Your task to perform on an android device: change the clock style Image 0: 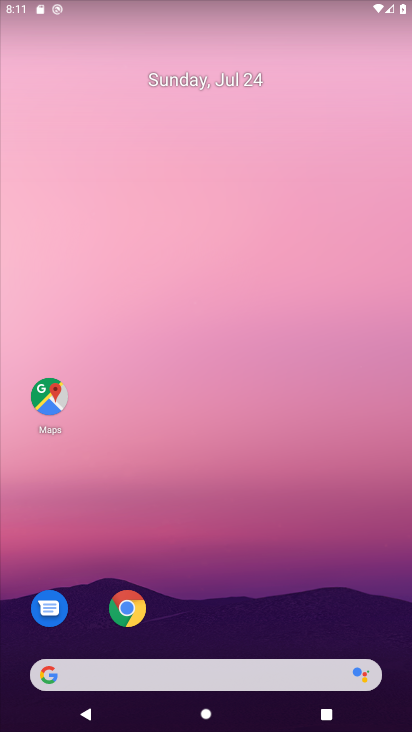
Step 0: drag from (163, 617) to (382, 38)
Your task to perform on an android device: change the clock style Image 1: 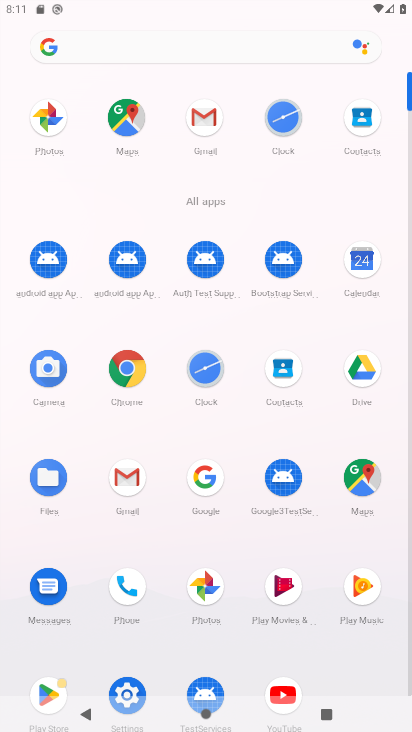
Step 1: click (288, 123)
Your task to perform on an android device: change the clock style Image 2: 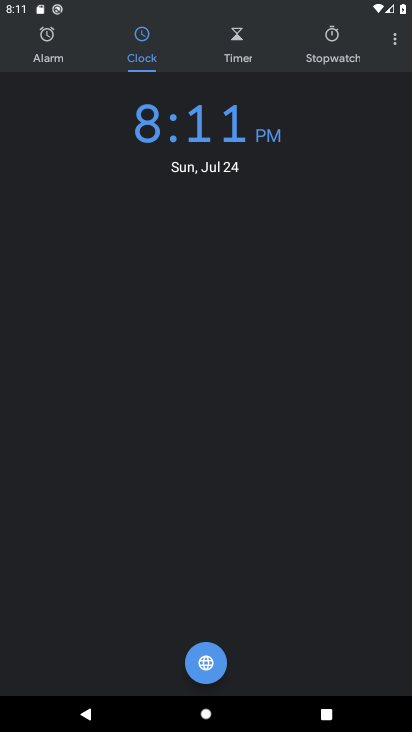
Step 2: click (399, 53)
Your task to perform on an android device: change the clock style Image 3: 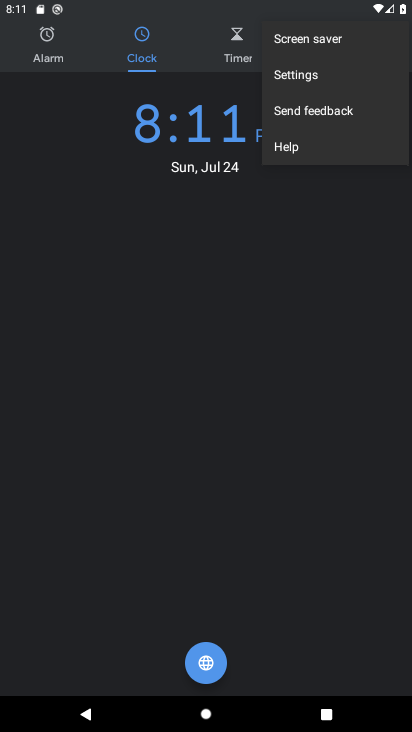
Step 3: click (292, 85)
Your task to perform on an android device: change the clock style Image 4: 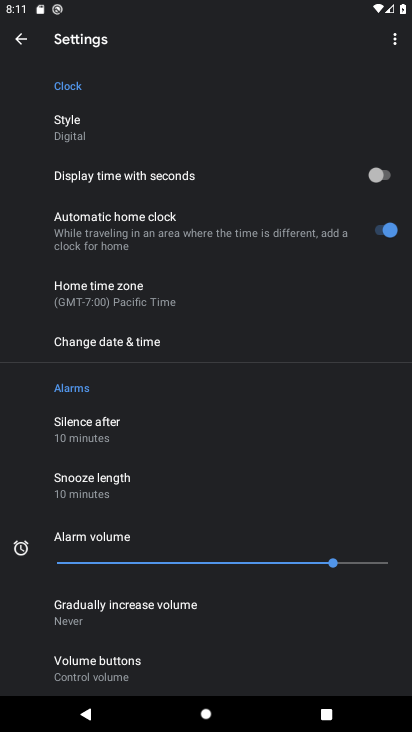
Step 4: task complete